Your task to perform on an android device: Play the last video I watched on Youtube Image 0: 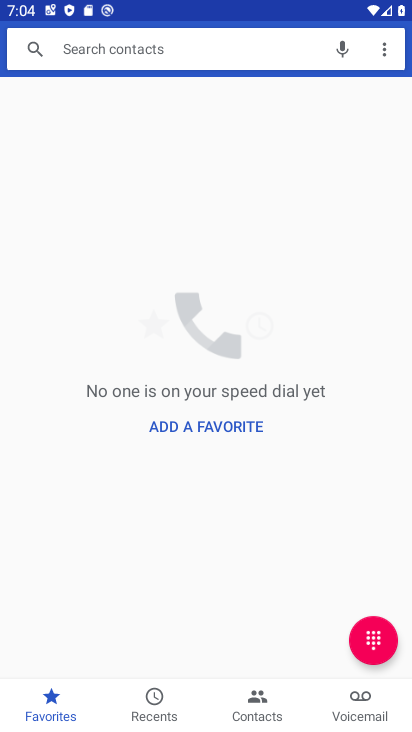
Step 0: press home button
Your task to perform on an android device: Play the last video I watched on Youtube Image 1: 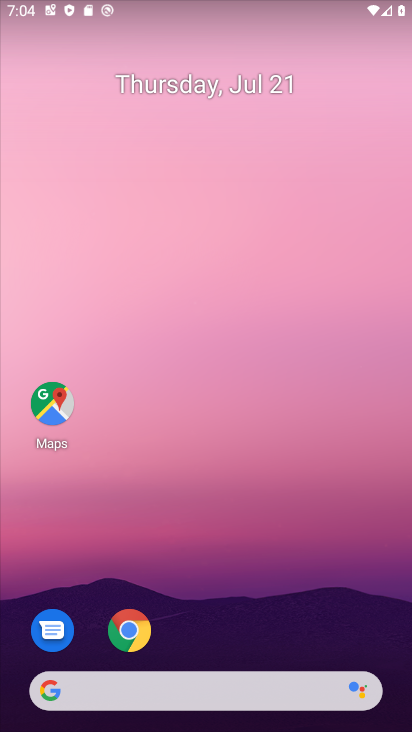
Step 1: drag from (180, 711) to (273, 24)
Your task to perform on an android device: Play the last video I watched on Youtube Image 2: 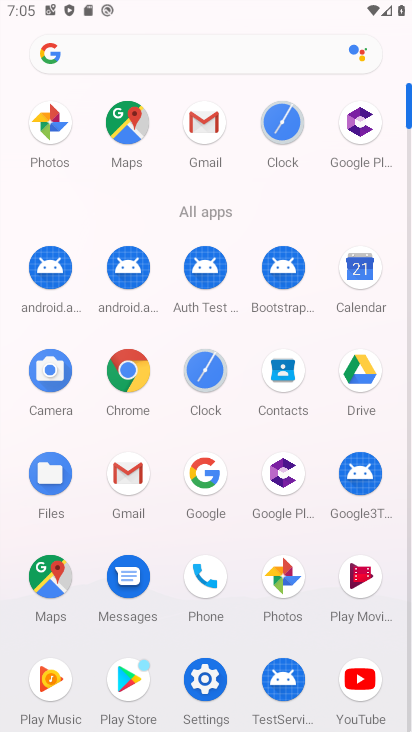
Step 2: click (359, 666)
Your task to perform on an android device: Play the last video I watched on Youtube Image 3: 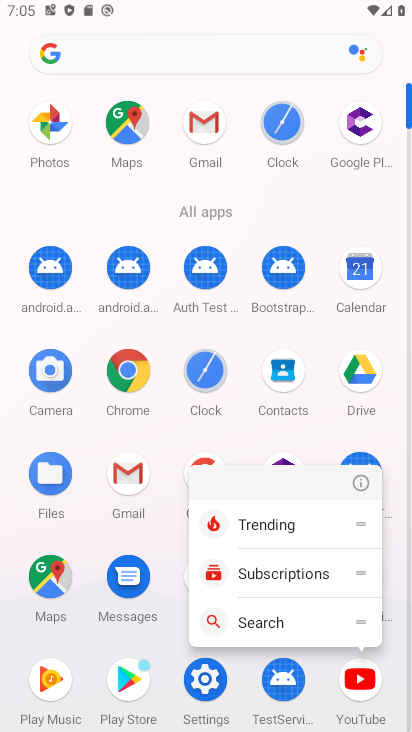
Step 3: click (359, 666)
Your task to perform on an android device: Play the last video I watched on Youtube Image 4: 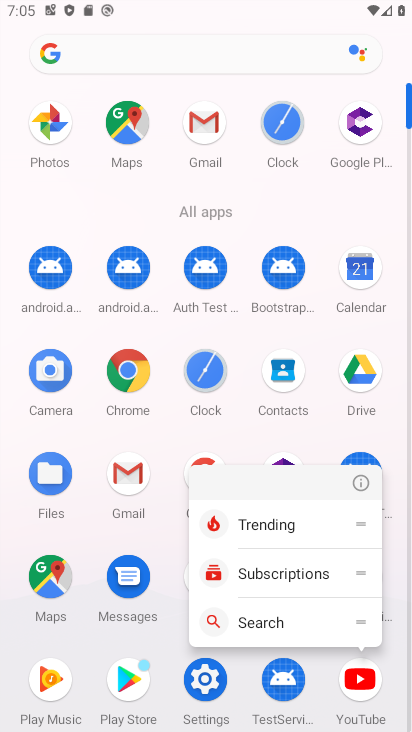
Step 4: click (359, 666)
Your task to perform on an android device: Play the last video I watched on Youtube Image 5: 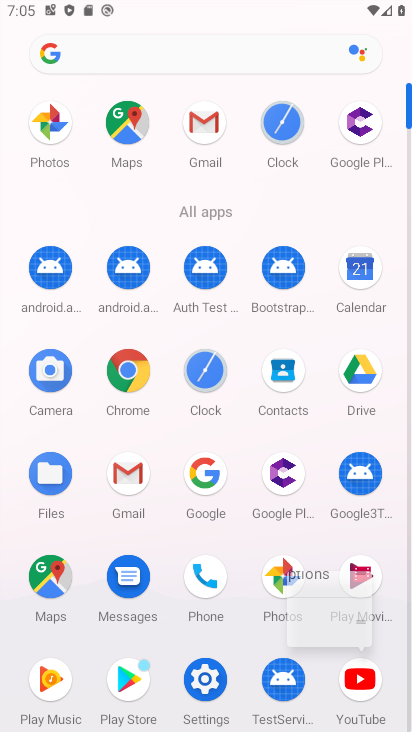
Step 5: click (359, 666)
Your task to perform on an android device: Play the last video I watched on Youtube Image 6: 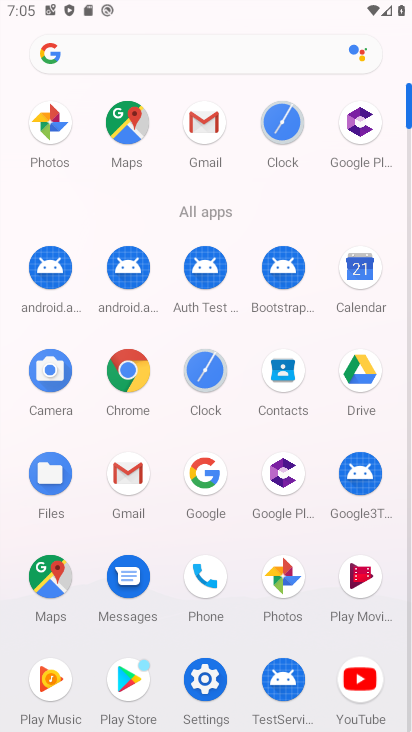
Step 6: click (359, 666)
Your task to perform on an android device: Play the last video I watched on Youtube Image 7: 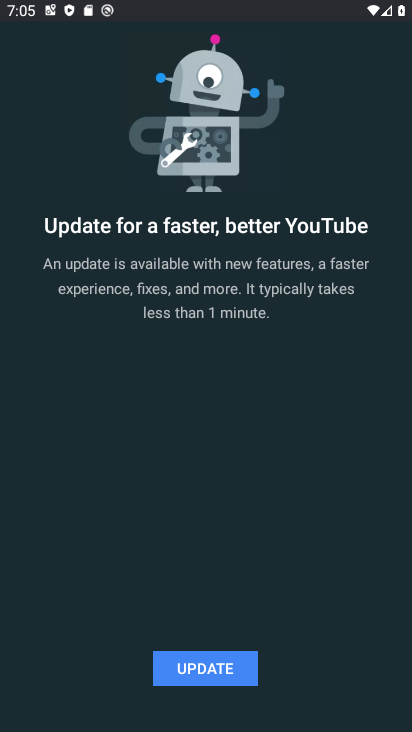
Step 7: click (189, 676)
Your task to perform on an android device: Play the last video I watched on Youtube Image 8: 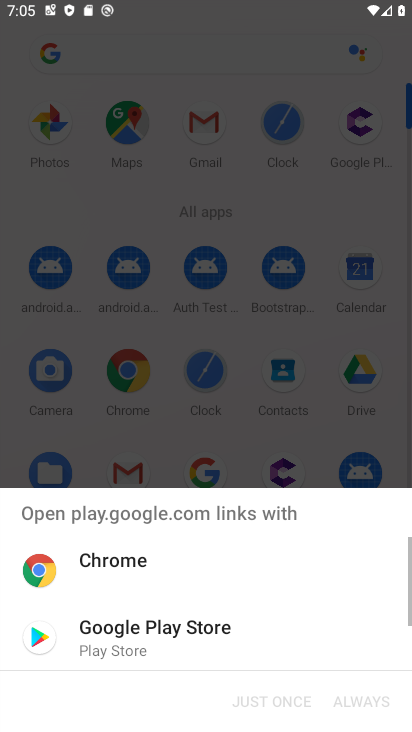
Step 8: click (84, 639)
Your task to perform on an android device: Play the last video I watched on Youtube Image 9: 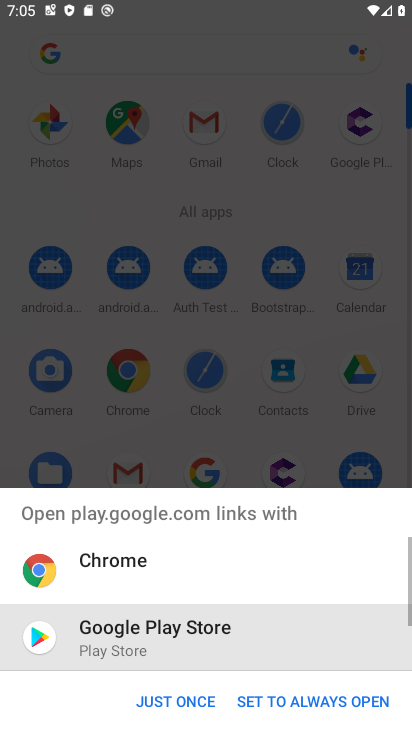
Step 9: click (192, 698)
Your task to perform on an android device: Play the last video I watched on Youtube Image 10: 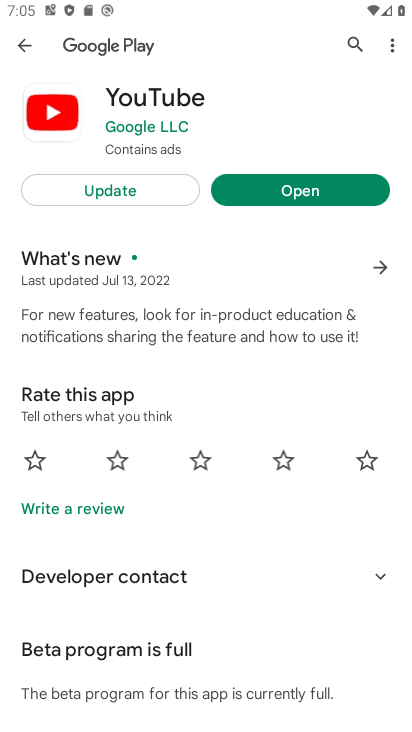
Step 10: click (58, 187)
Your task to perform on an android device: Play the last video I watched on Youtube Image 11: 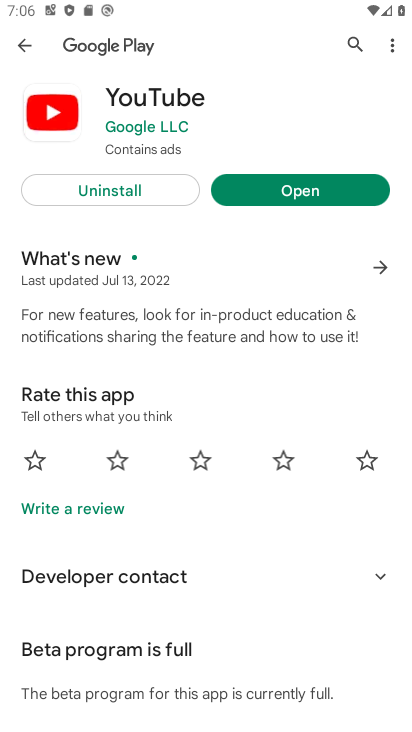
Step 11: click (303, 187)
Your task to perform on an android device: Play the last video I watched on Youtube Image 12: 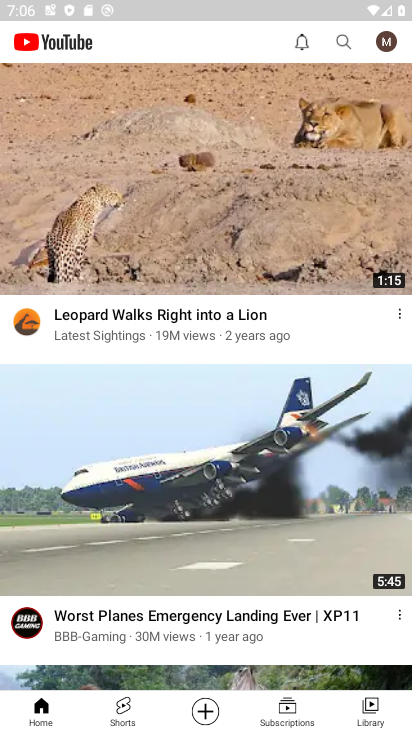
Step 12: click (374, 708)
Your task to perform on an android device: Play the last video I watched on Youtube Image 13: 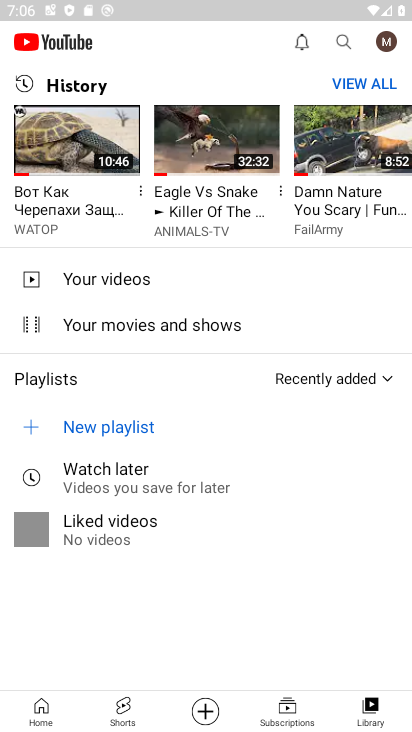
Step 13: click (47, 135)
Your task to perform on an android device: Play the last video I watched on Youtube Image 14: 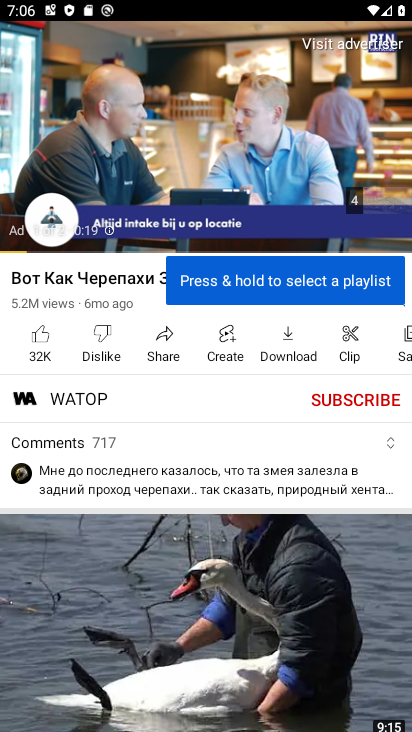
Step 14: task complete